Your task to perform on an android device: Open the map Image 0: 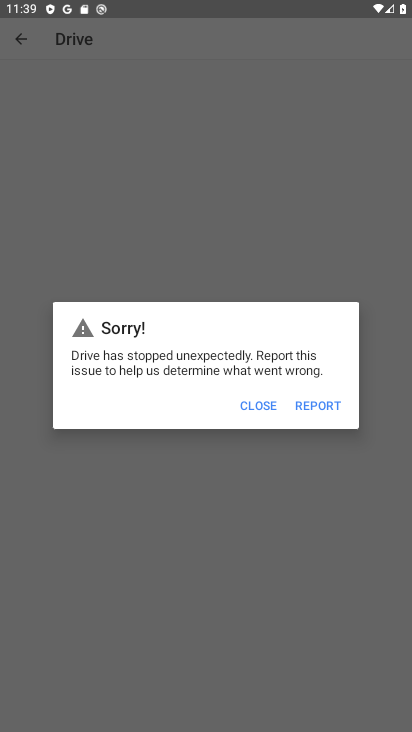
Step 0: press home button
Your task to perform on an android device: Open the map Image 1: 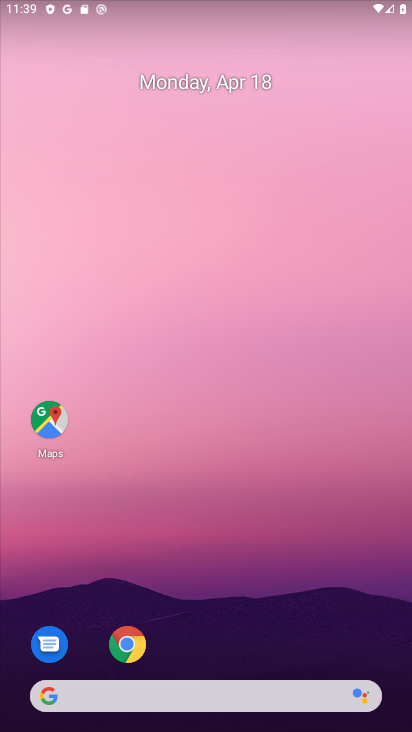
Step 1: click (44, 438)
Your task to perform on an android device: Open the map Image 2: 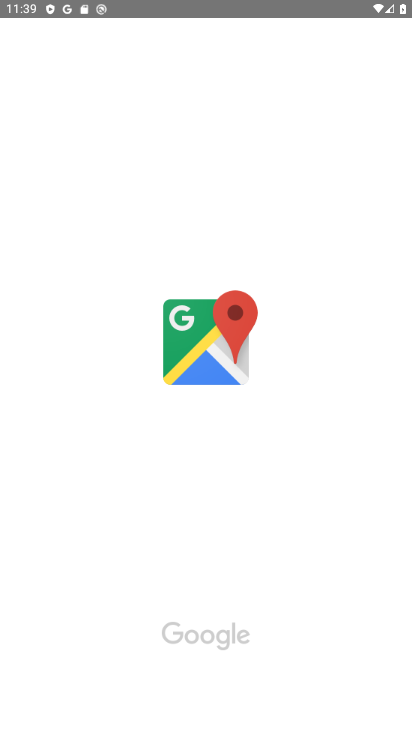
Step 2: task complete